Your task to perform on an android device: Go to Amazon Image 0: 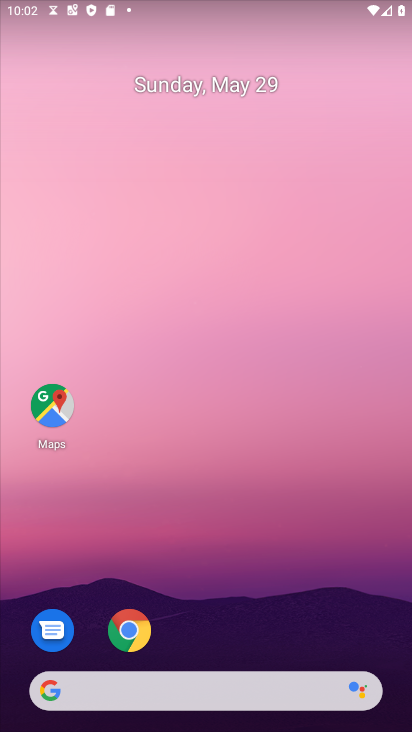
Step 0: click (136, 629)
Your task to perform on an android device: Go to Amazon Image 1: 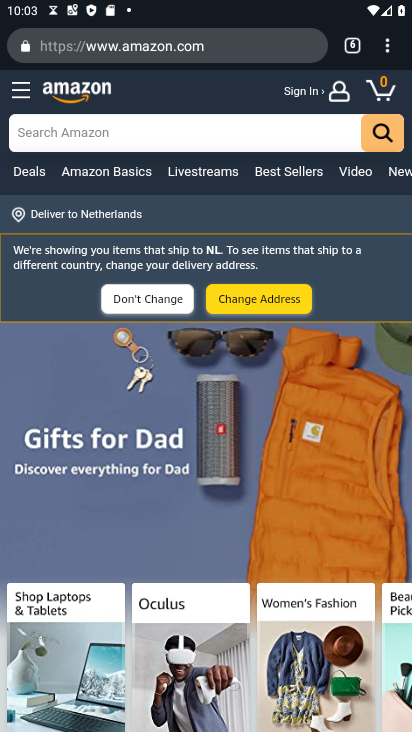
Step 1: task complete